Your task to perform on an android device: Open Chrome and go to the settings page Image 0: 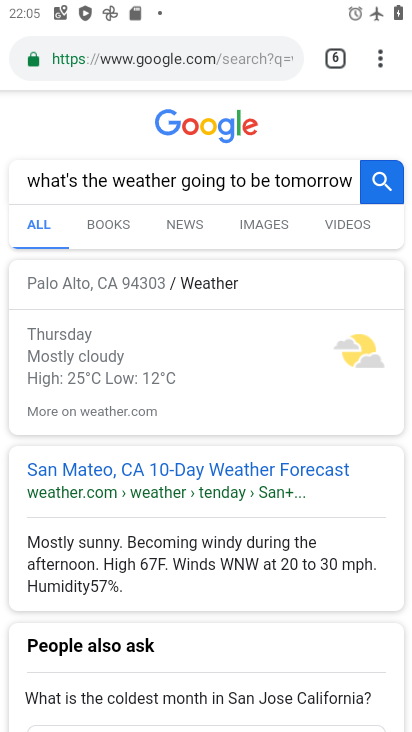
Step 0: press home button
Your task to perform on an android device: Open Chrome and go to the settings page Image 1: 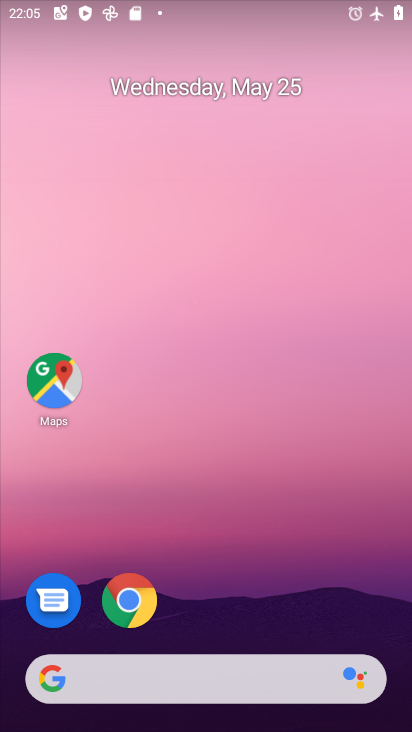
Step 1: drag from (360, 582) to (334, 139)
Your task to perform on an android device: Open Chrome and go to the settings page Image 2: 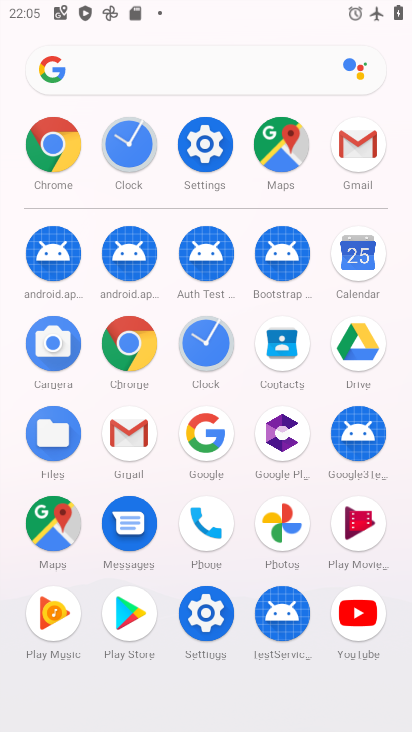
Step 2: click (151, 344)
Your task to perform on an android device: Open Chrome and go to the settings page Image 3: 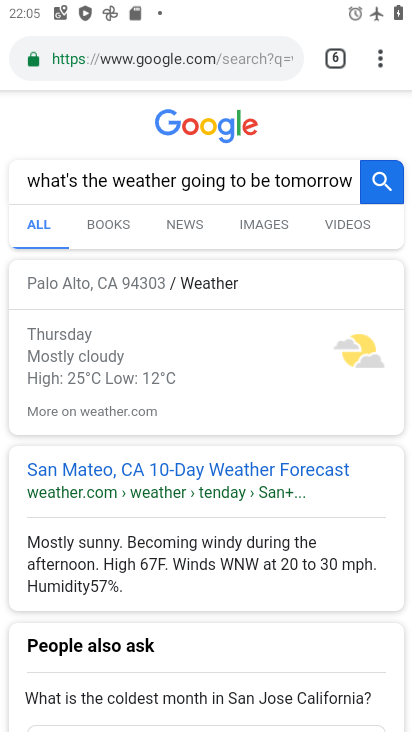
Step 3: task complete